Your task to perform on an android device: Show me productivity apps on the Play Store Image 0: 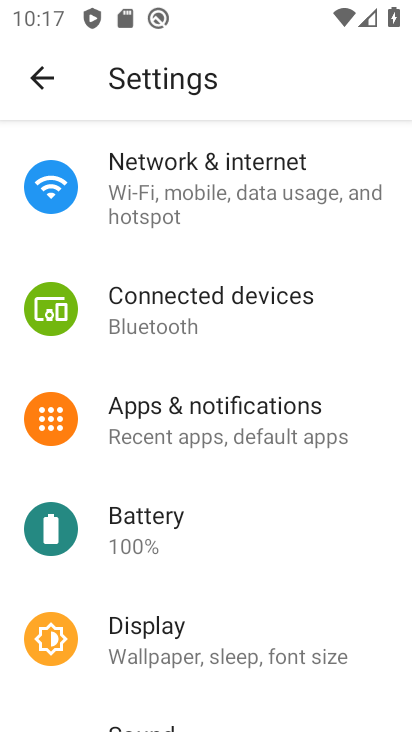
Step 0: press home button
Your task to perform on an android device: Show me productivity apps on the Play Store Image 1: 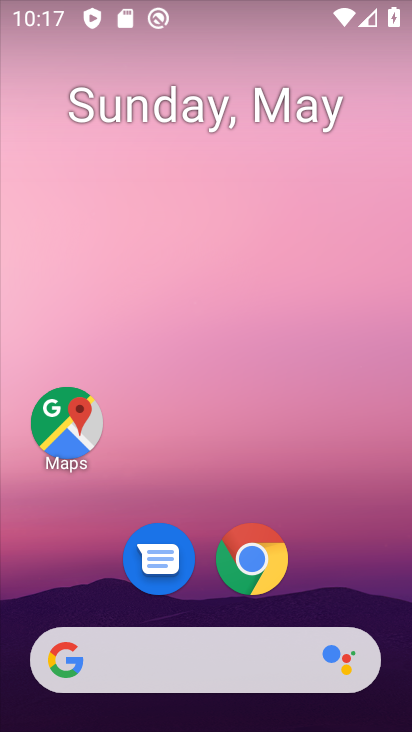
Step 1: drag from (195, 590) to (284, 44)
Your task to perform on an android device: Show me productivity apps on the Play Store Image 2: 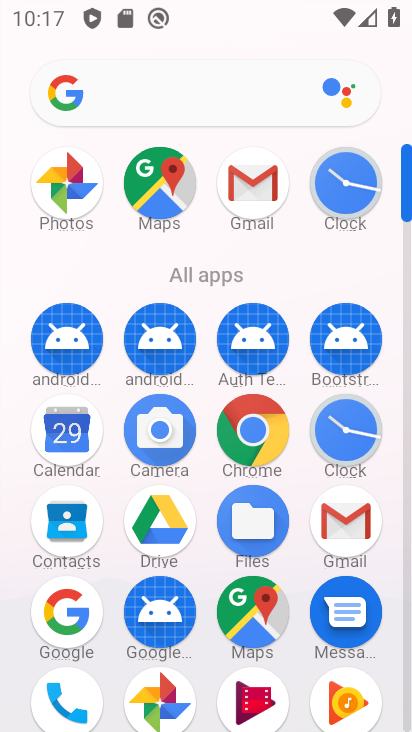
Step 2: drag from (206, 648) to (247, 187)
Your task to perform on an android device: Show me productivity apps on the Play Store Image 3: 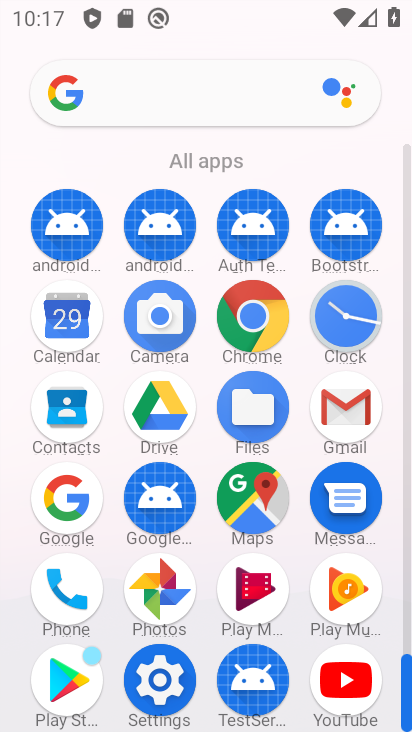
Step 3: click (58, 658)
Your task to perform on an android device: Show me productivity apps on the Play Store Image 4: 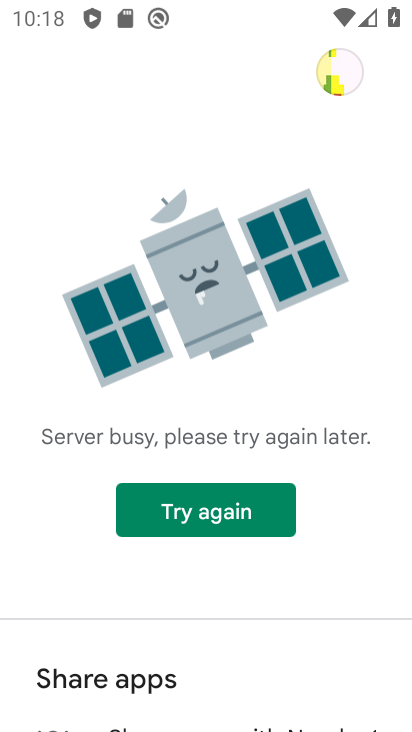
Step 4: task complete